Your task to perform on an android device: Is it going to rain today? Image 0: 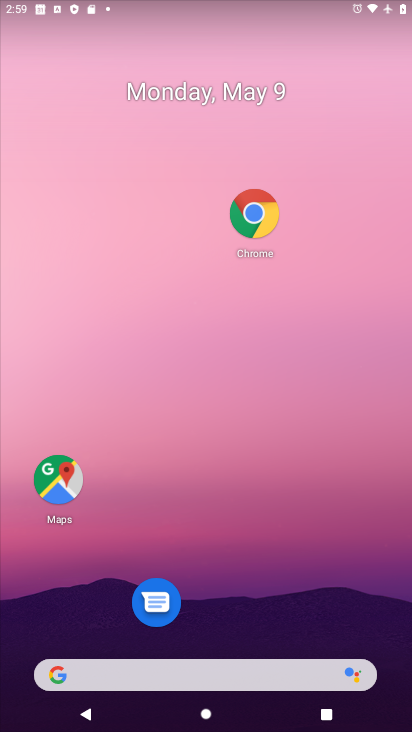
Step 0: drag from (300, 585) to (155, 10)
Your task to perform on an android device: Is it going to rain today? Image 1: 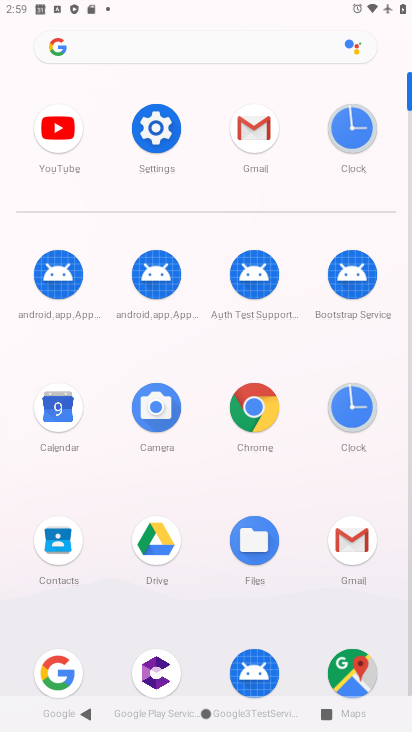
Step 1: click (169, 140)
Your task to perform on an android device: Is it going to rain today? Image 2: 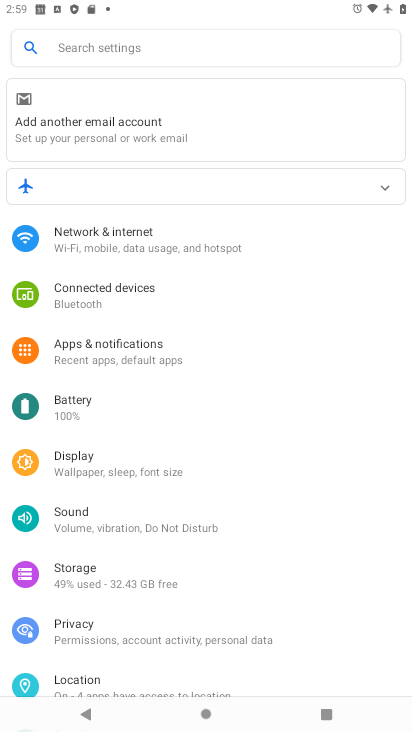
Step 2: click (199, 712)
Your task to perform on an android device: Is it going to rain today? Image 3: 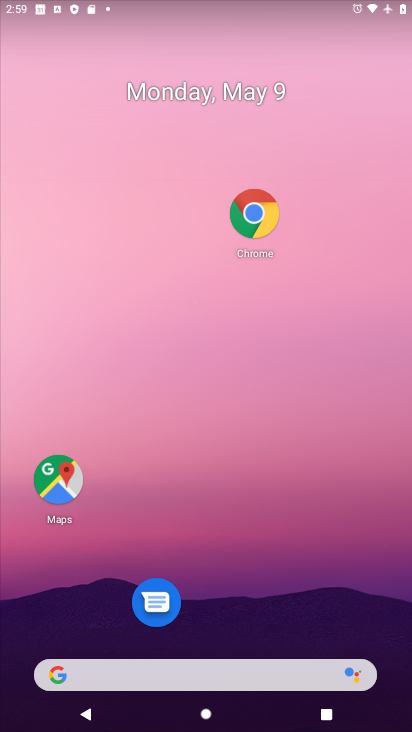
Step 3: drag from (236, 639) to (205, 62)
Your task to perform on an android device: Is it going to rain today? Image 4: 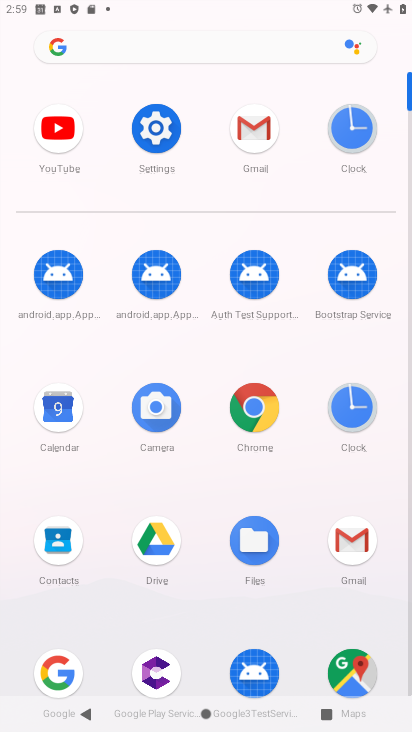
Step 4: click (233, 31)
Your task to perform on an android device: Is it going to rain today? Image 5: 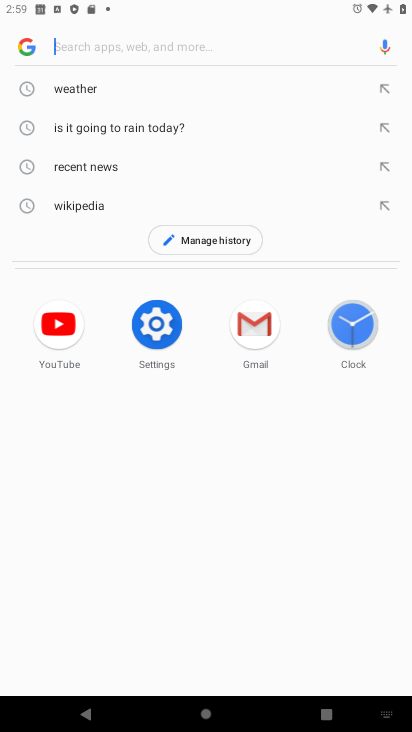
Step 5: click (162, 97)
Your task to perform on an android device: Is it going to rain today? Image 6: 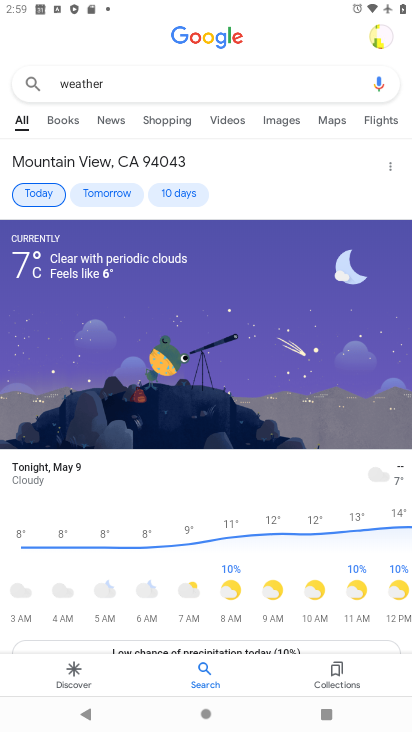
Step 6: task complete